Your task to perform on an android device: Open Youtube and go to the subscriptions tab Image 0: 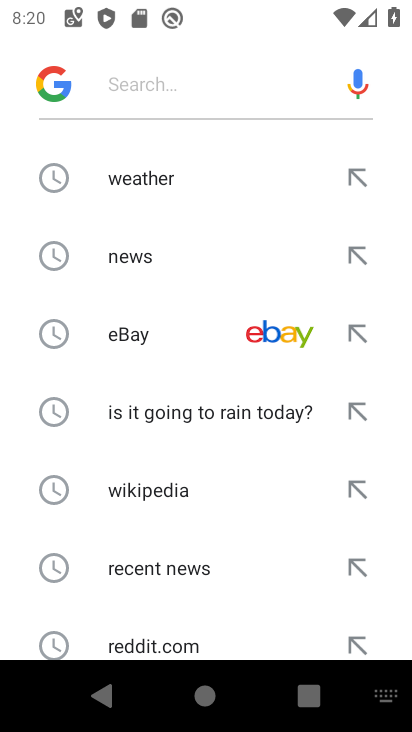
Step 0: press home button
Your task to perform on an android device: Open Youtube and go to the subscriptions tab Image 1: 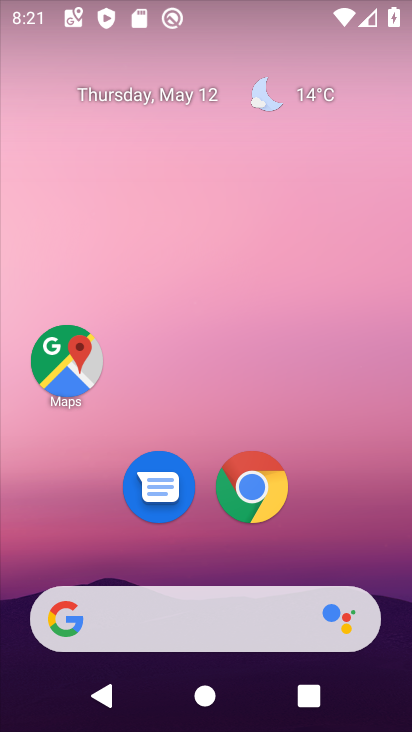
Step 1: drag from (356, 580) to (342, 5)
Your task to perform on an android device: Open Youtube and go to the subscriptions tab Image 2: 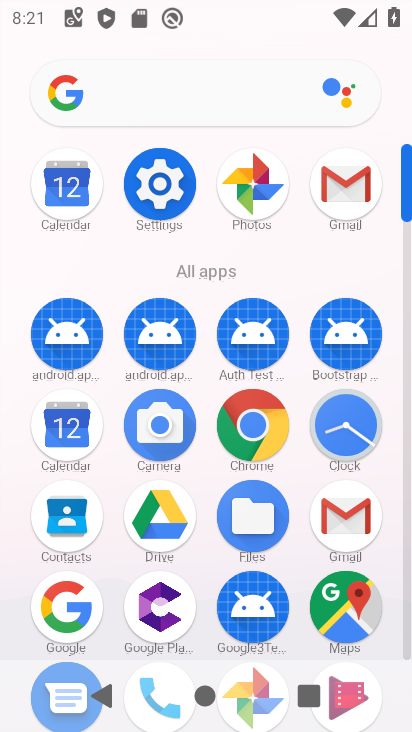
Step 2: drag from (408, 523) to (407, 469)
Your task to perform on an android device: Open Youtube and go to the subscriptions tab Image 3: 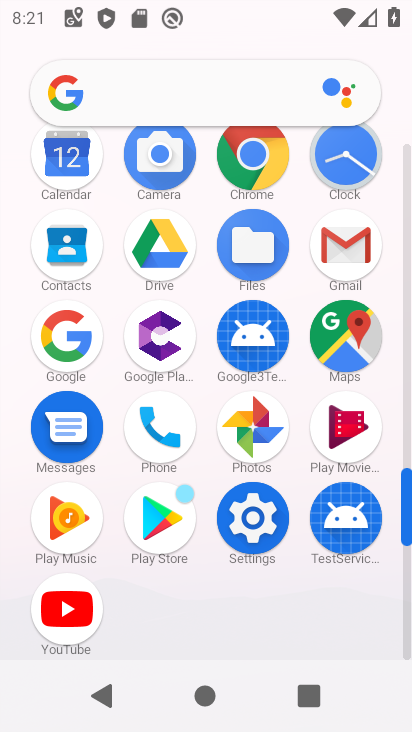
Step 3: click (74, 603)
Your task to perform on an android device: Open Youtube and go to the subscriptions tab Image 4: 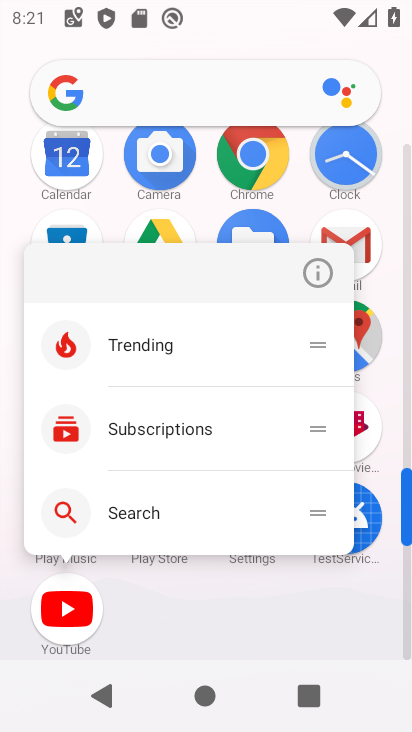
Step 4: click (111, 431)
Your task to perform on an android device: Open Youtube and go to the subscriptions tab Image 5: 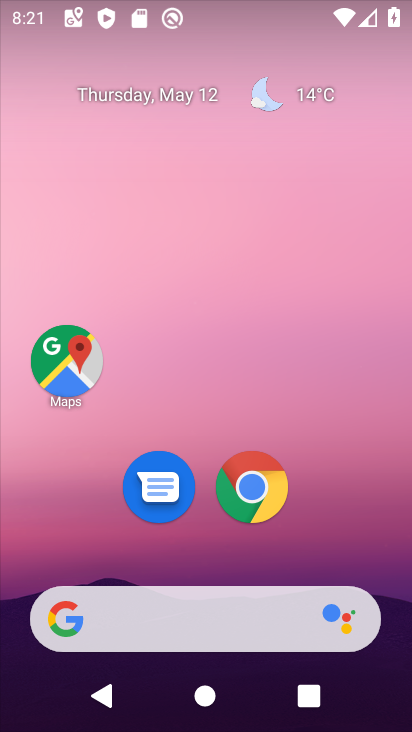
Step 5: drag from (310, 570) to (315, 10)
Your task to perform on an android device: Open Youtube and go to the subscriptions tab Image 6: 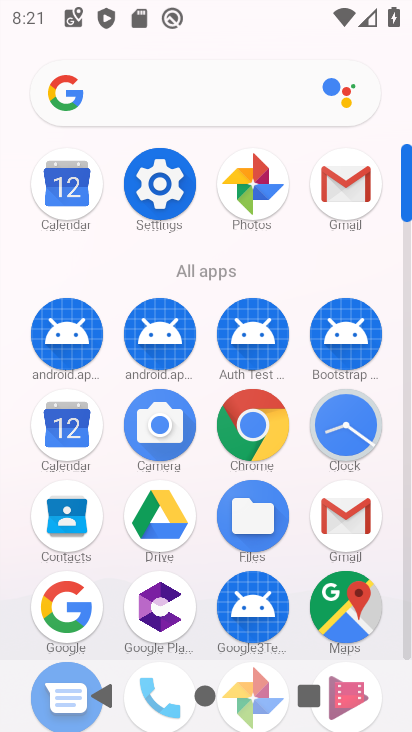
Step 6: drag from (403, 600) to (398, 547)
Your task to perform on an android device: Open Youtube and go to the subscriptions tab Image 7: 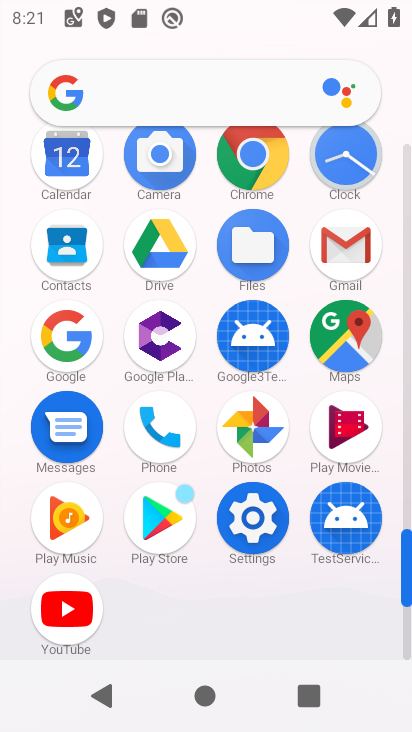
Step 7: click (69, 630)
Your task to perform on an android device: Open Youtube and go to the subscriptions tab Image 8: 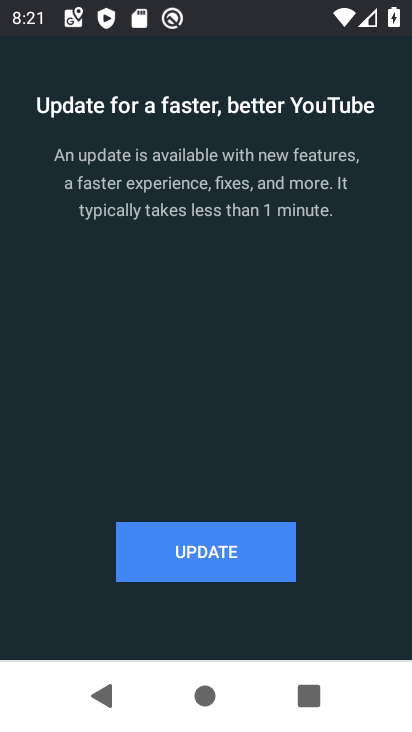
Step 8: click (227, 548)
Your task to perform on an android device: Open Youtube and go to the subscriptions tab Image 9: 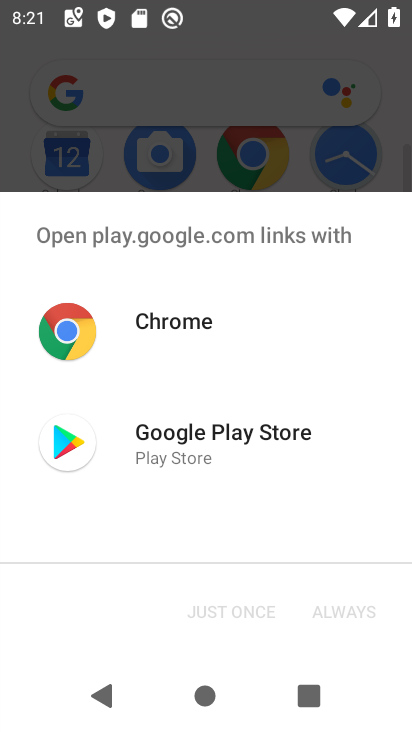
Step 9: click (190, 441)
Your task to perform on an android device: Open Youtube and go to the subscriptions tab Image 10: 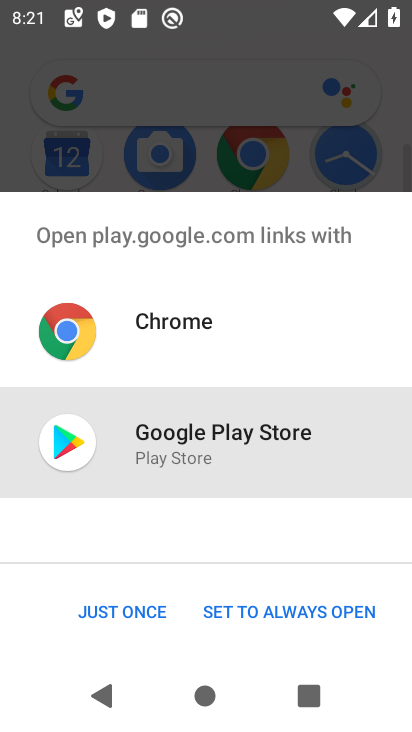
Step 10: click (131, 621)
Your task to perform on an android device: Open Youtube and go to the subscriptions tab Image 11: 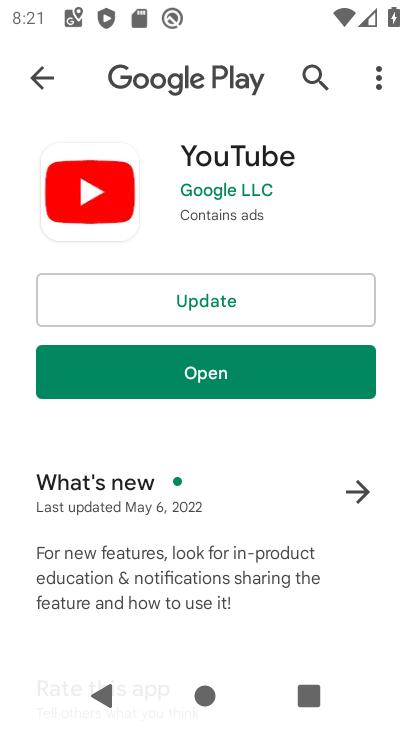
Step 11: click (182, 301)
Your task to perform on an android device: Open Youtube and go to the subscriptions tab Image 12: 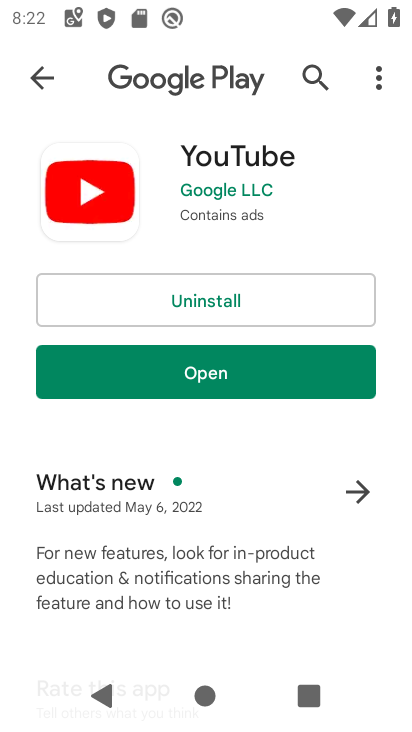
Step 12: click (197, 353)
Your task to perform on an android device: Open Youtube and go to the subscriptions tab Image 13: 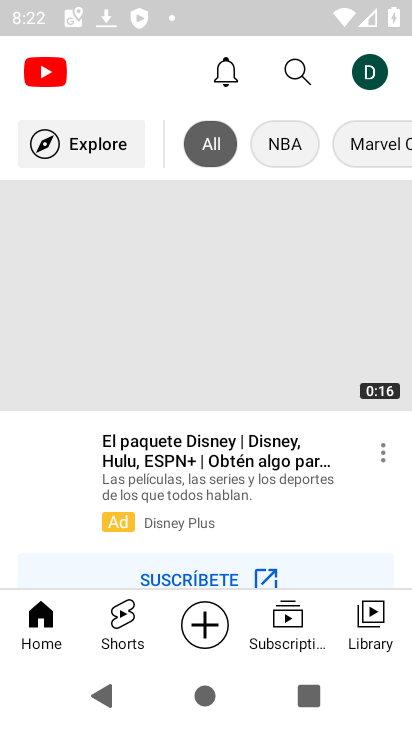
Step 13: click (278, 632)
Your task to perform on an android device: Open Youtube and go to the subscriptions tab Image 14: 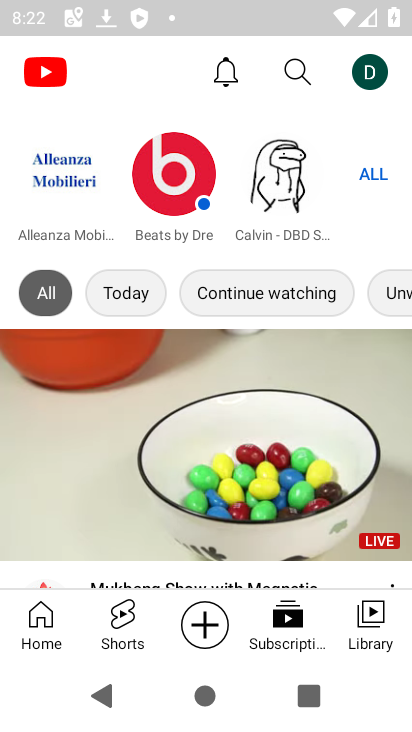
Step 14: task complete